Your task to perform on an android device: Search for pizza restaurants on Maps Image 0: 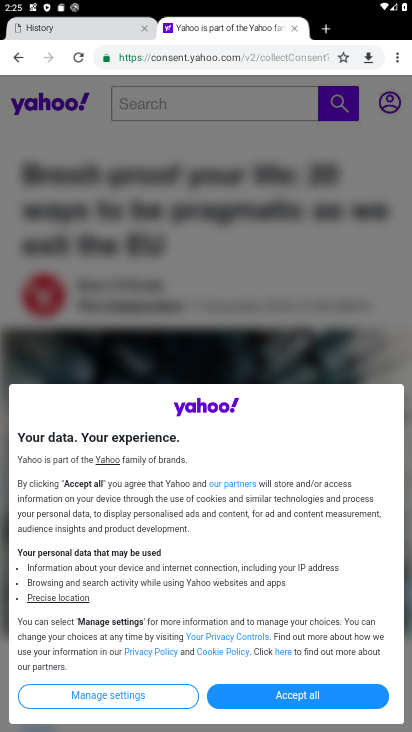
Step 0: press home button
Your task to perform on an android device: Search for pizza restaurants on Maps Image 1: 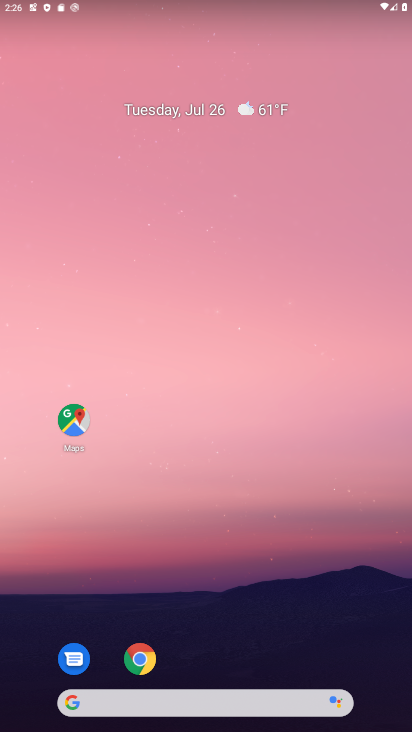
Step 1: click (72, 422)
Your task to perform on an android device: Search for pizza restaurants on Maps Image 2: 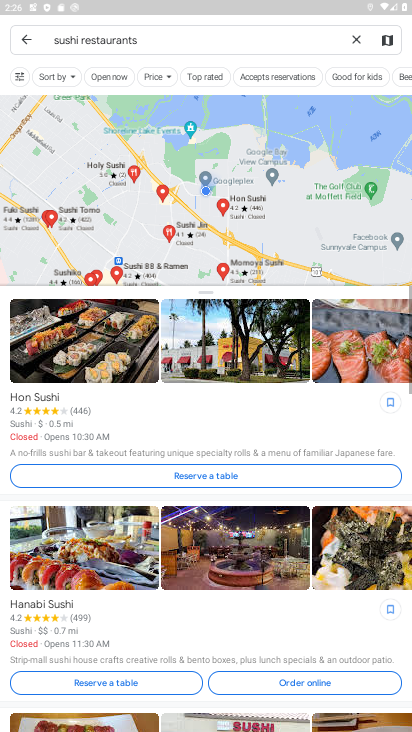
Step 2: click (354, 37)
Your task to perform on an android device: Search for pizza restaurants on Maps Image 3: 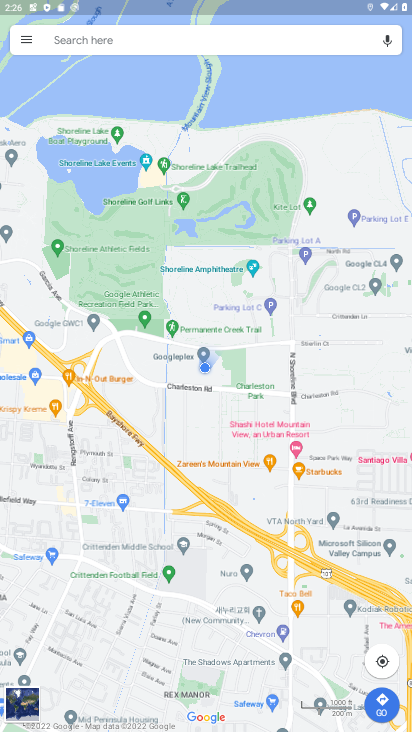
Step 3: click (184, 36)
Your task to perform on an android device: Search for pizza restaurants on Maps Image 4: 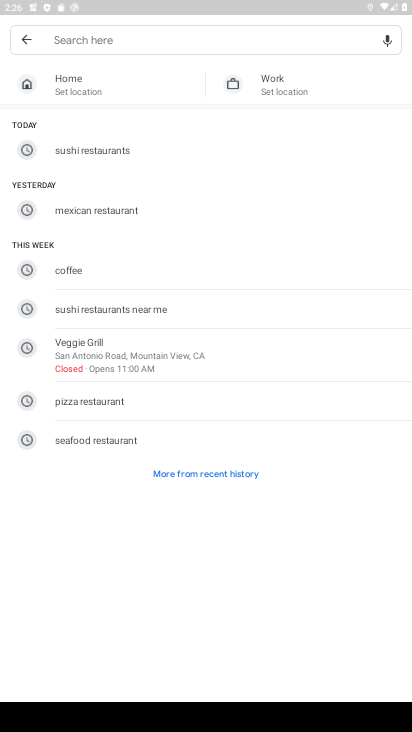
Step 4: click (87, 398)
Your task to perform on an android device: Search for pizza restaurants on Maps Image 5: 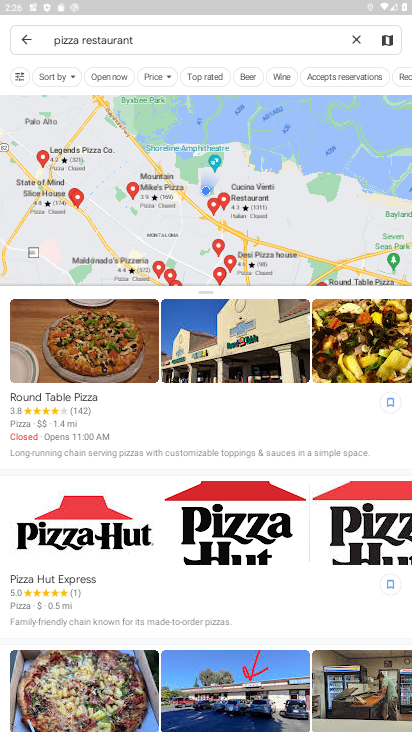
Step 5: task complete